Your task to perform on an android device: delete a single message in the gmail app Image 0: 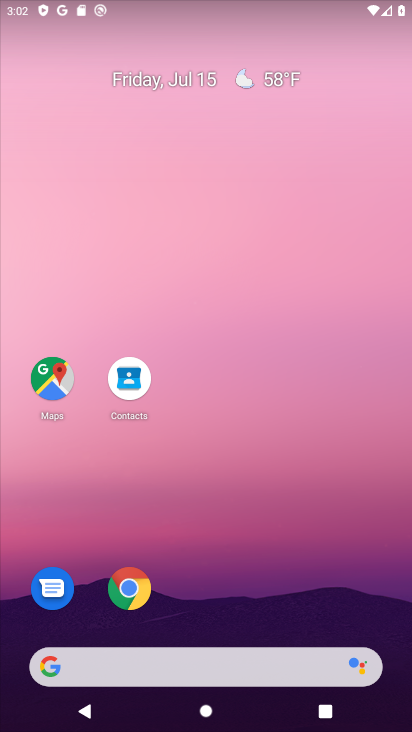
Step 0: drag from (298, 593) to (218, 82)
Your task to perform on an android device: delete a single message in the gmail app Image 1: 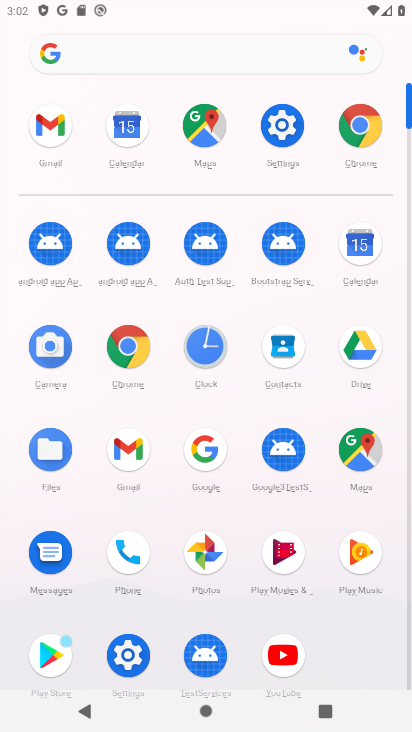
Step 1: click (140, 445)
Your task to perform on an android device: delete a single message in the gmail app Image 2: 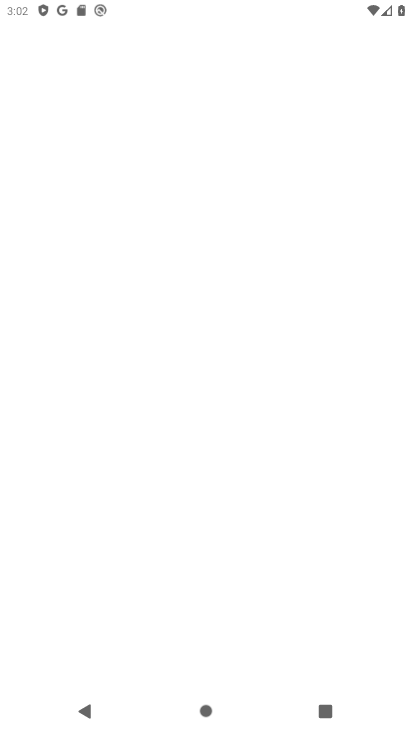
Step 2: task complete